Your task to perform on an android device: turn on airplane mode Image 0: 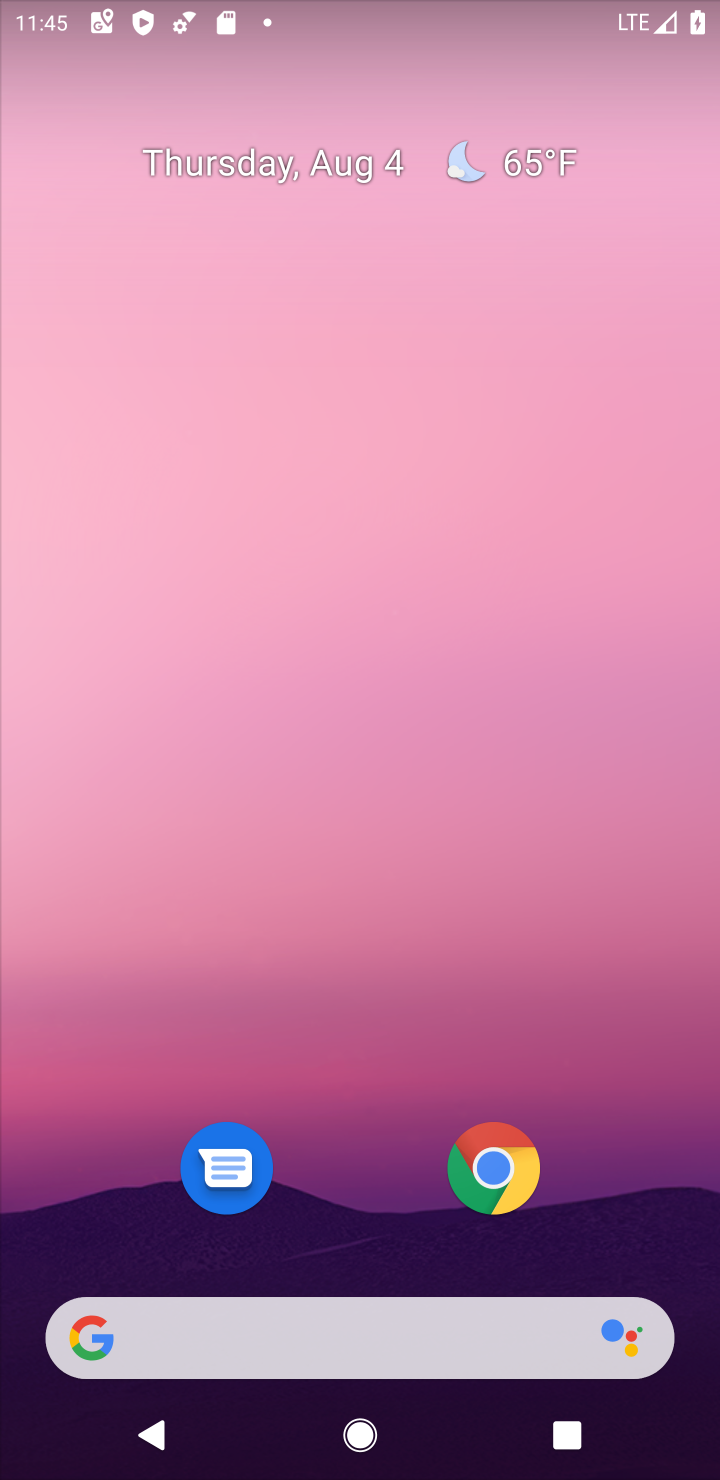
Step 0: click (685, 1205)
Your task to perform on an android device: turn on airplane mode Image 1: 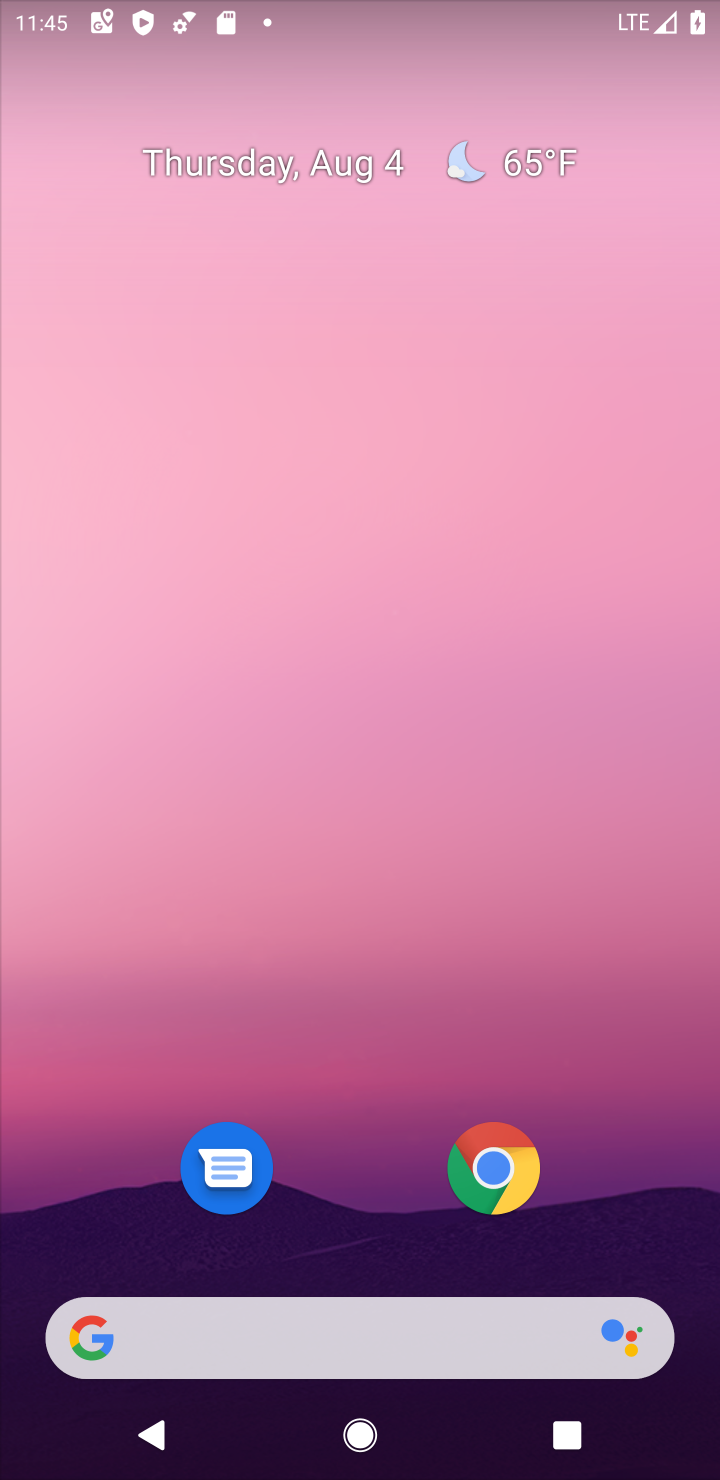
Step 1: drag from (337, 8) to (540, 1274)
Your task to perform on an android device: turn on airplane mode Image 2: 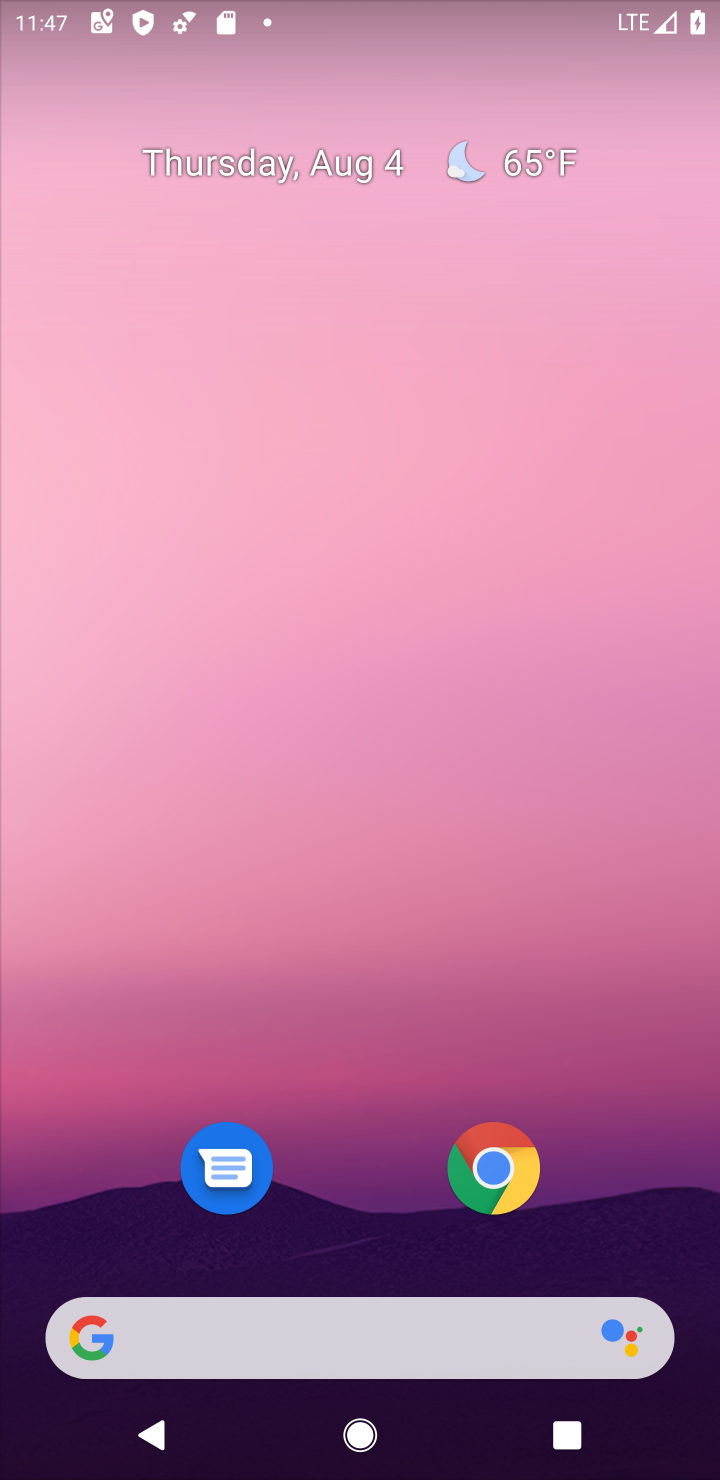
Step 2: drag from (463, 23) to (559, 1357)
Your task to perform on an android device: turn on airplane mode Image 3: 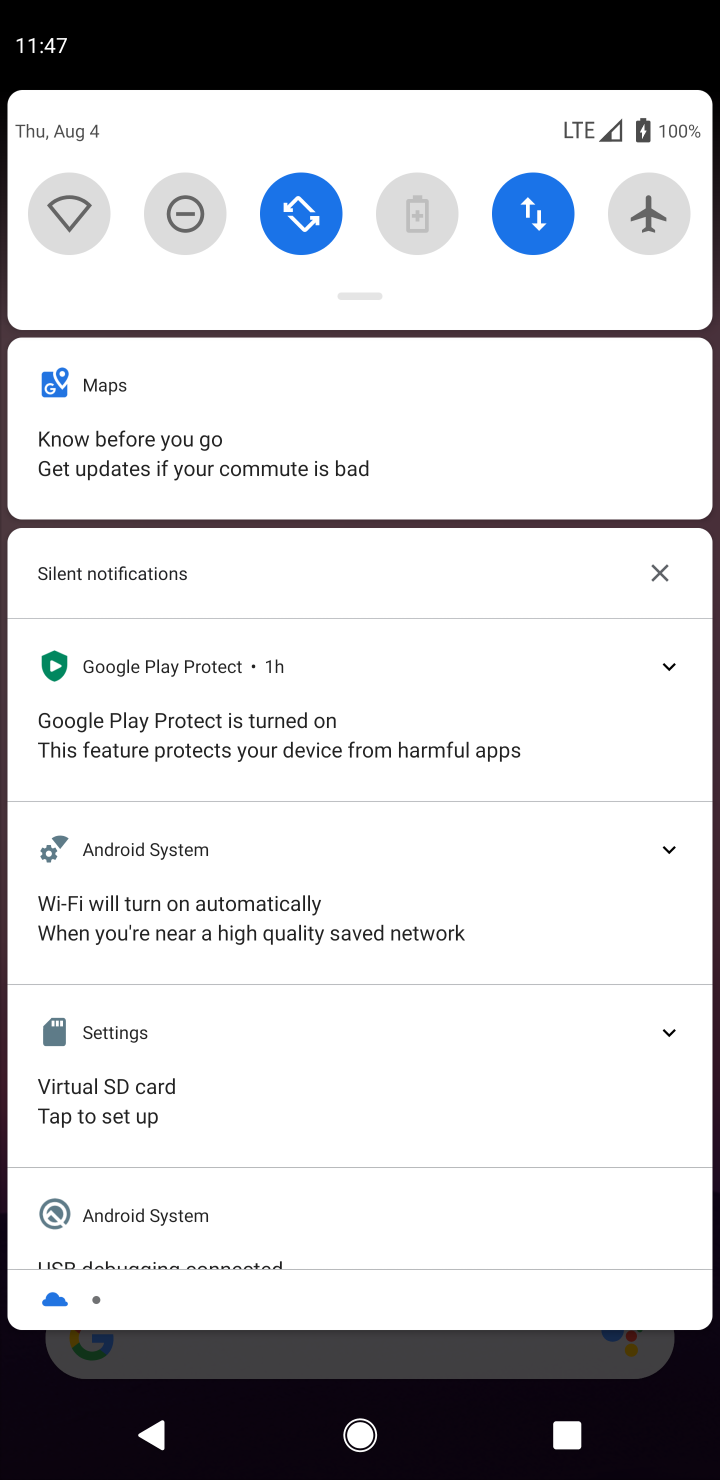
Step 3: click (620, 191)
Your task to perform on an android device: turn on airplane mode Image 4: 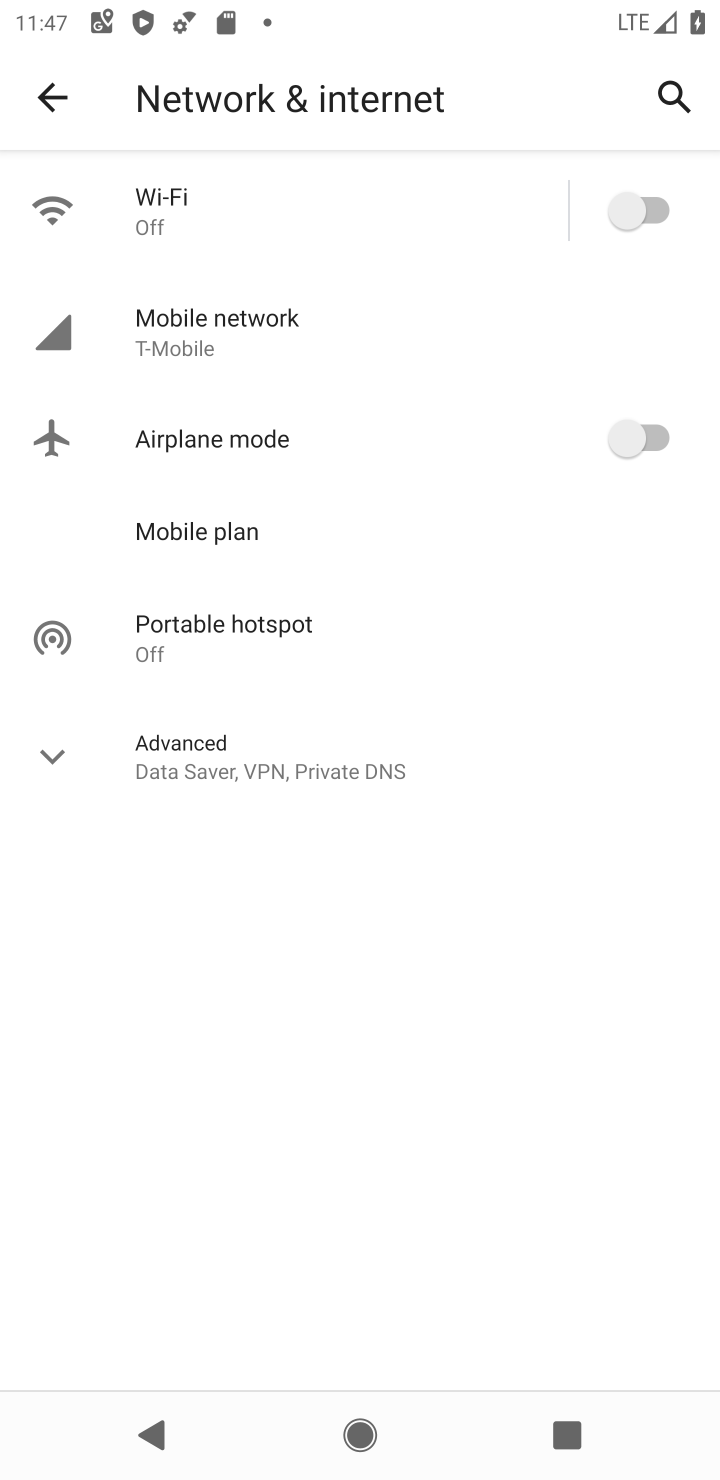
Step 4: click (606, 447)
Your task to perform on an android device: turn on airplane mode Image 5: 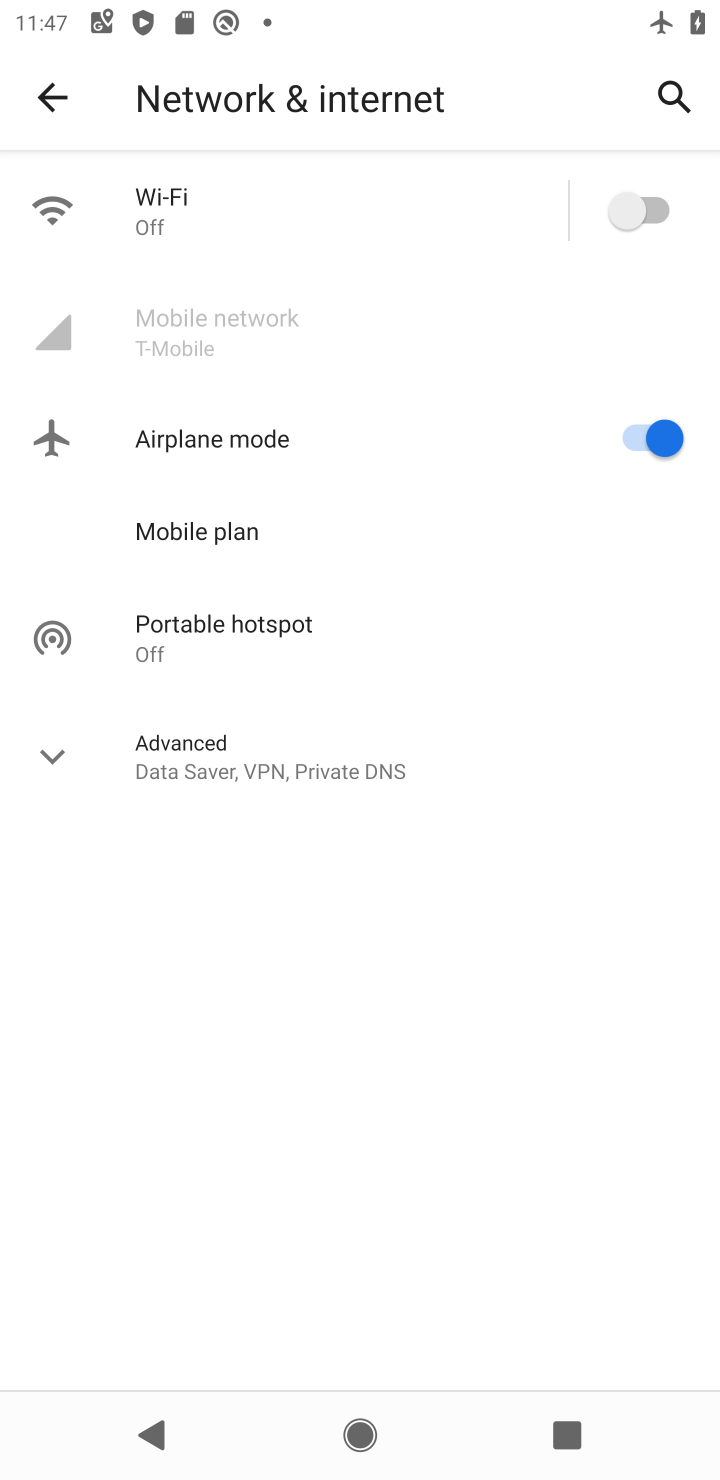
Step 5: task complete